Your task to perform on an android device: Search for vegetarian restaurants on Maps Image 0: 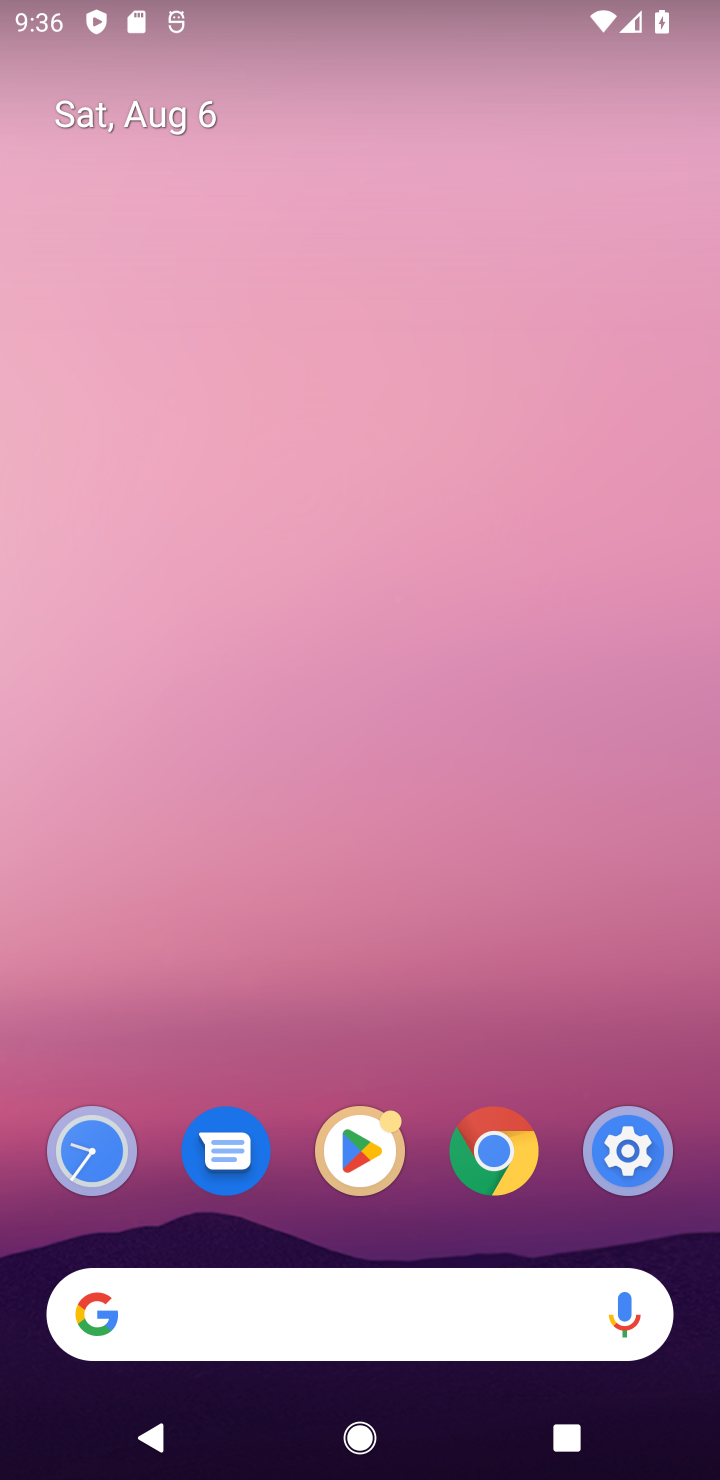
Step 0: drag from (622, 566) to (717, 246)
Your task to perform on an android device: Search for vegetarian restaurants on Maps Image 1: 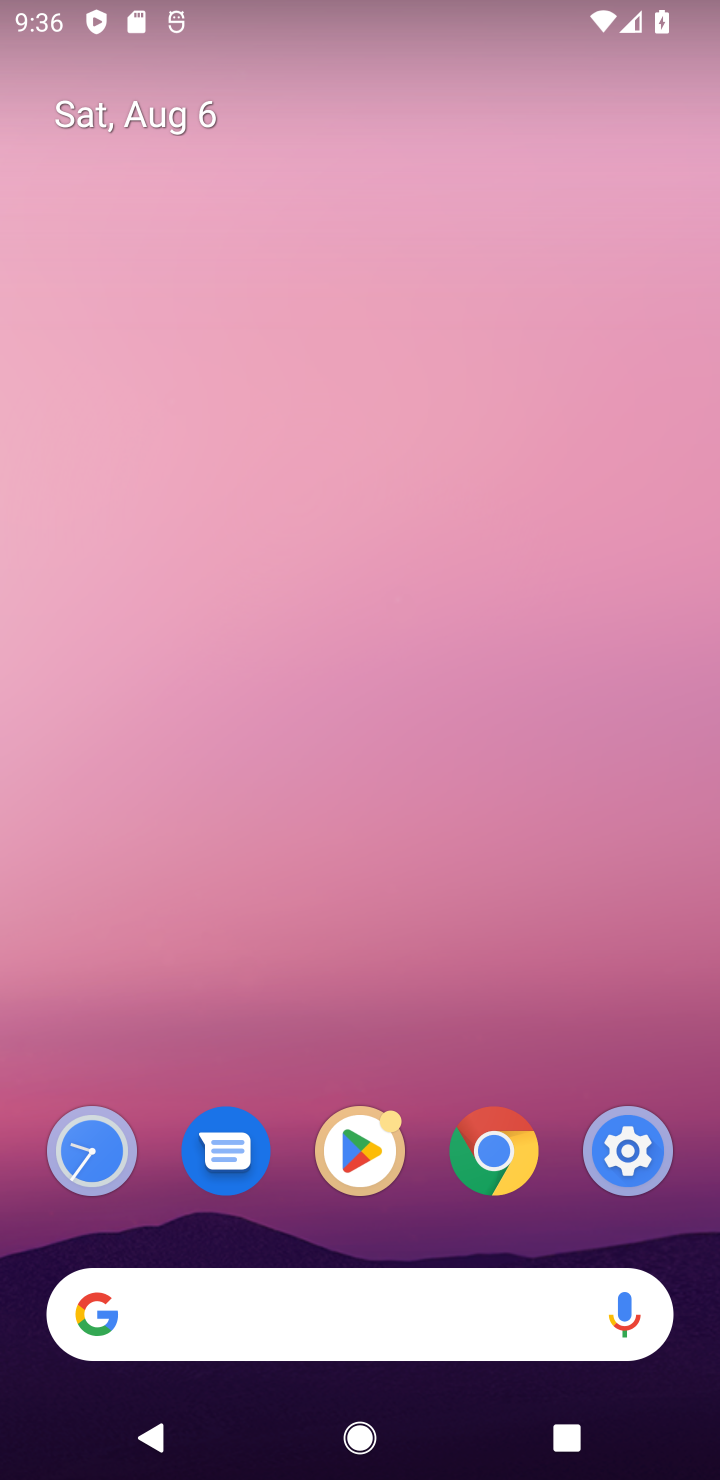
Step 1: drag from (389, 850) to (497, 243)
Your task to perform on an android device: Search for vegetarian restaurants on Maps Image 2: 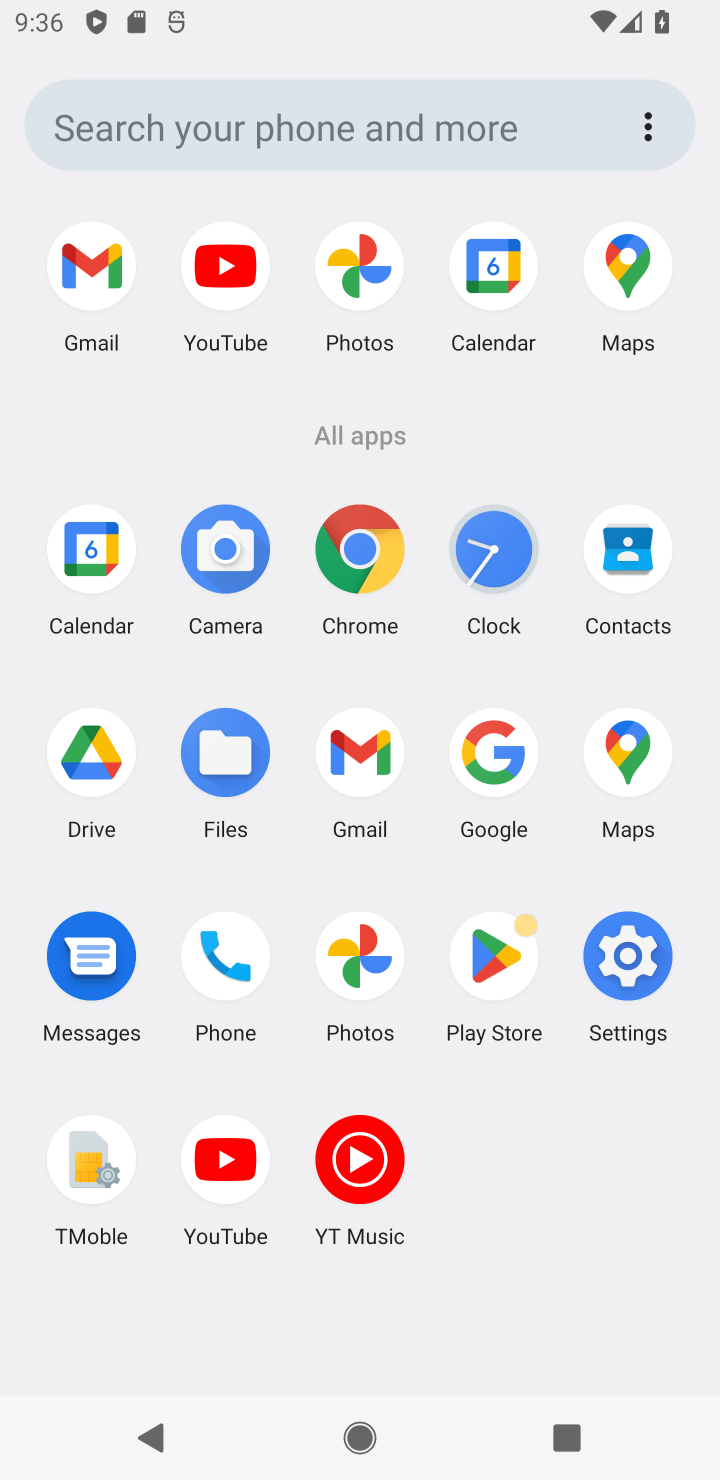
Step 2: click (634, 252)
Your task to perform on an android device: Search for vegetarian restaurants on Maps Image 3: 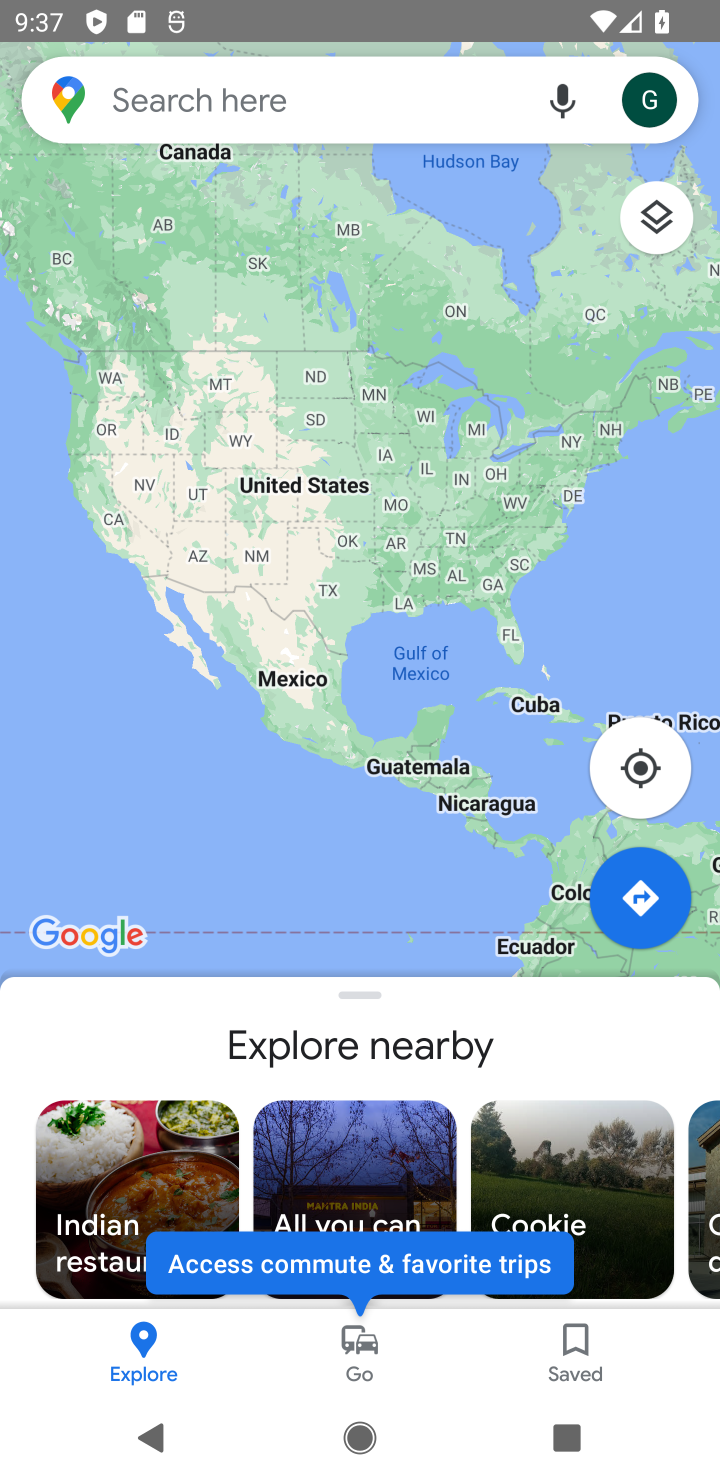
Step 3: type "vegetarian restaurants "
Your task to perform on an android device: Search for vegetarian restaurants on Maps Image 4: 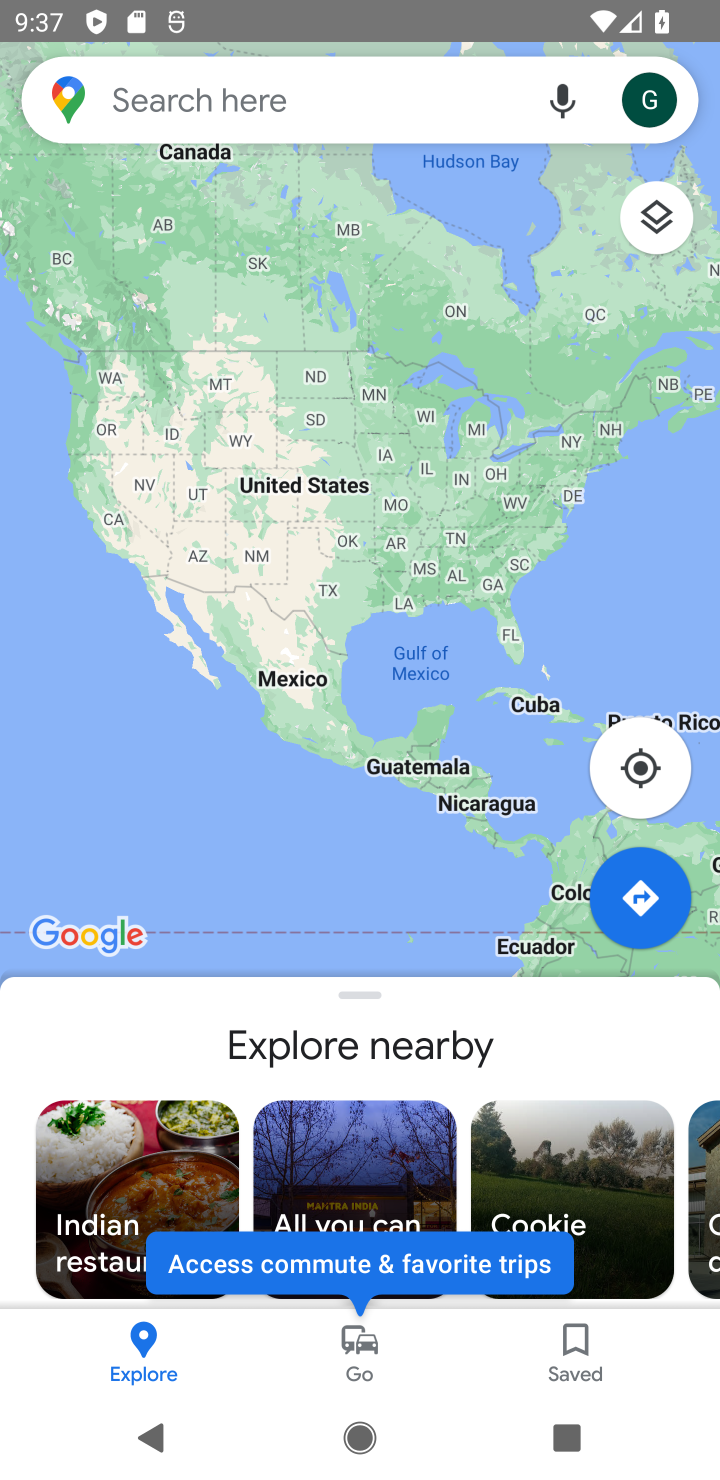
Step 4: click (477, 74)
Your task to perform on an android device: Search for vegetarian restaurants on Maps Image 5: 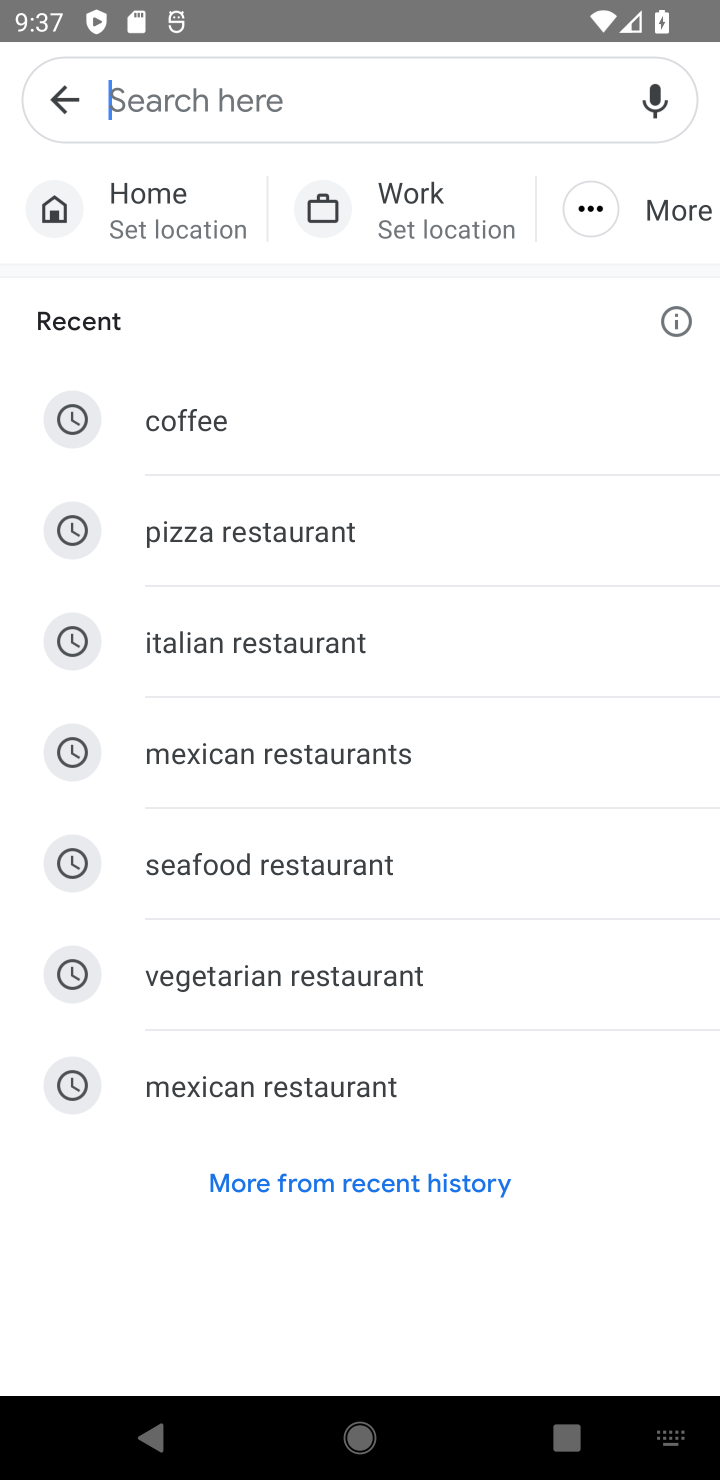
Step 5: type "vegetarian restaurants "
Your task to perform on an android device: Search for vegetarian restaurants on Maps Image 6: 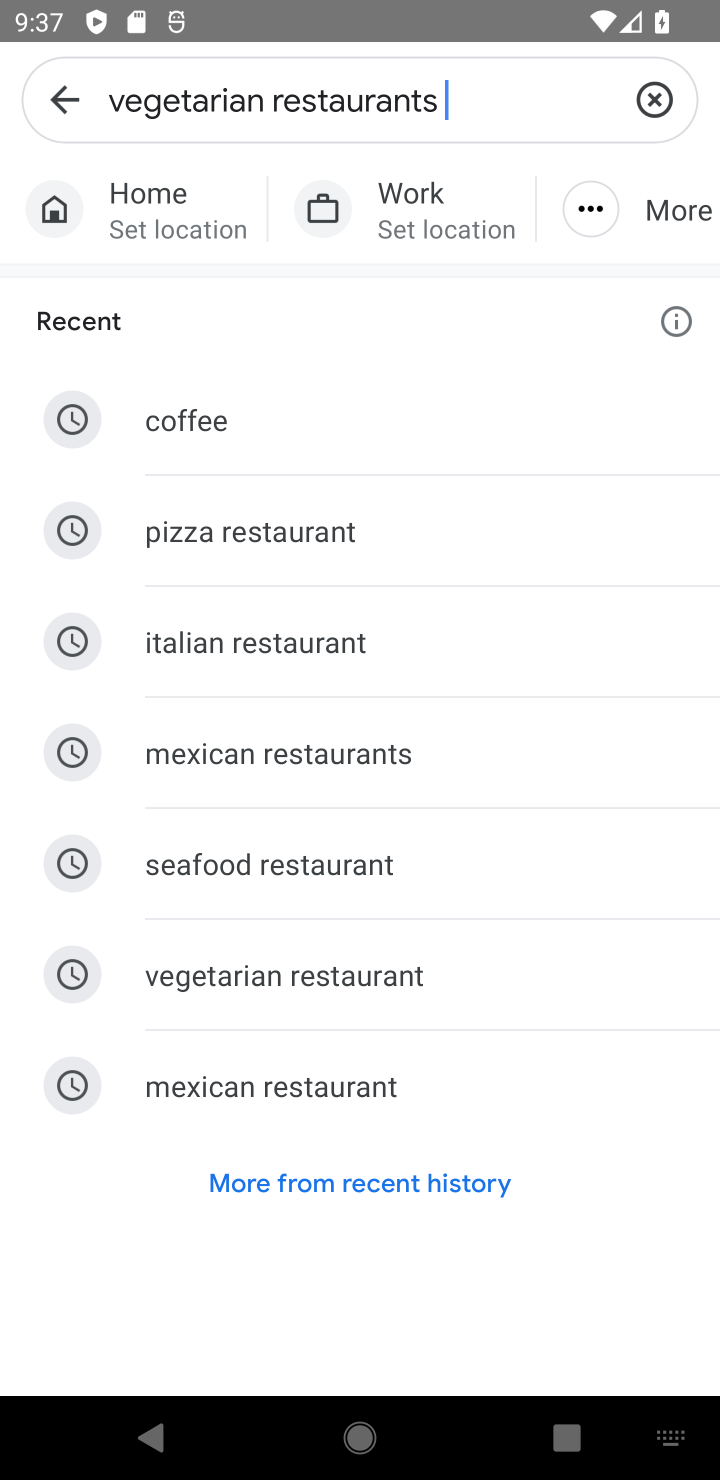
Step 6: type ""
Your task to perform on an android device: Search for vegetarian restaurants on Maps Image 7: 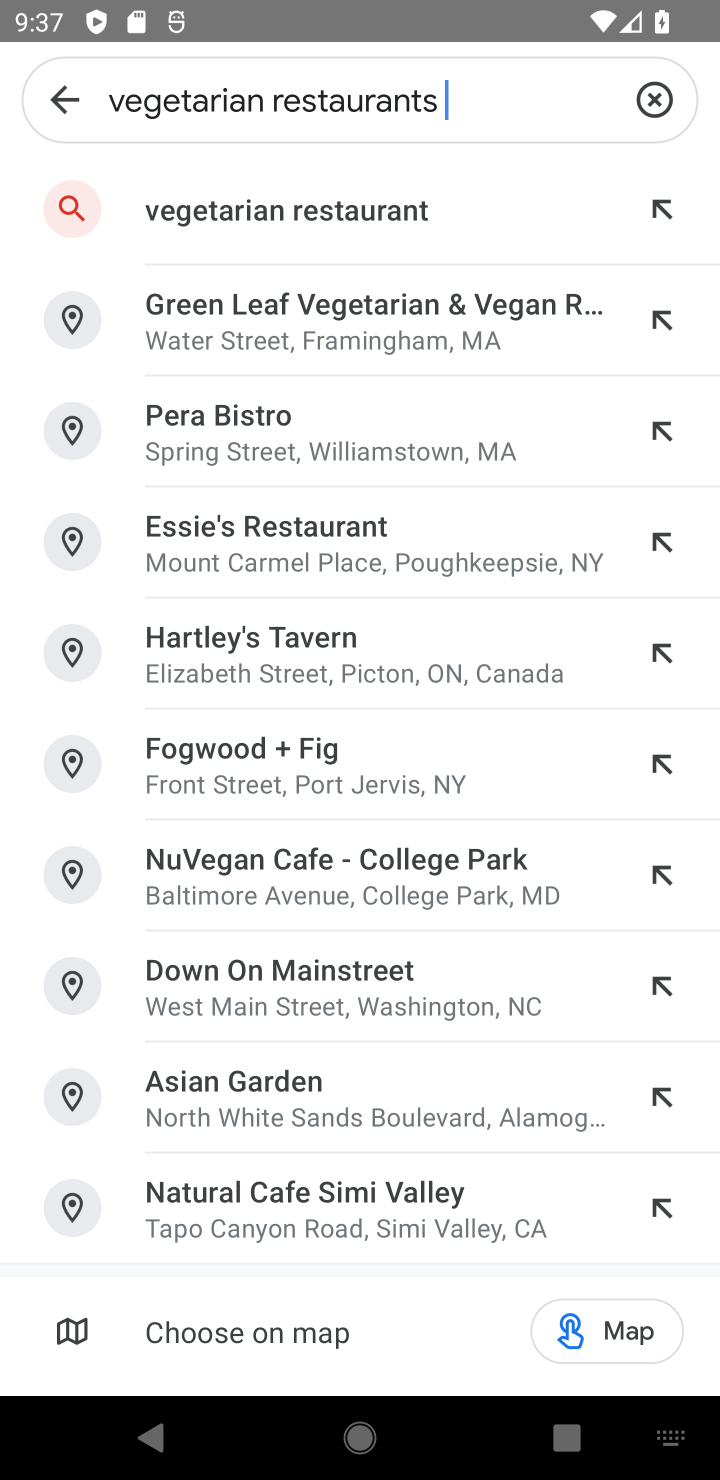
Step 7: press enter
Your task to perform on an android device: Search for vegetarian restaurants on Maps Image 8: 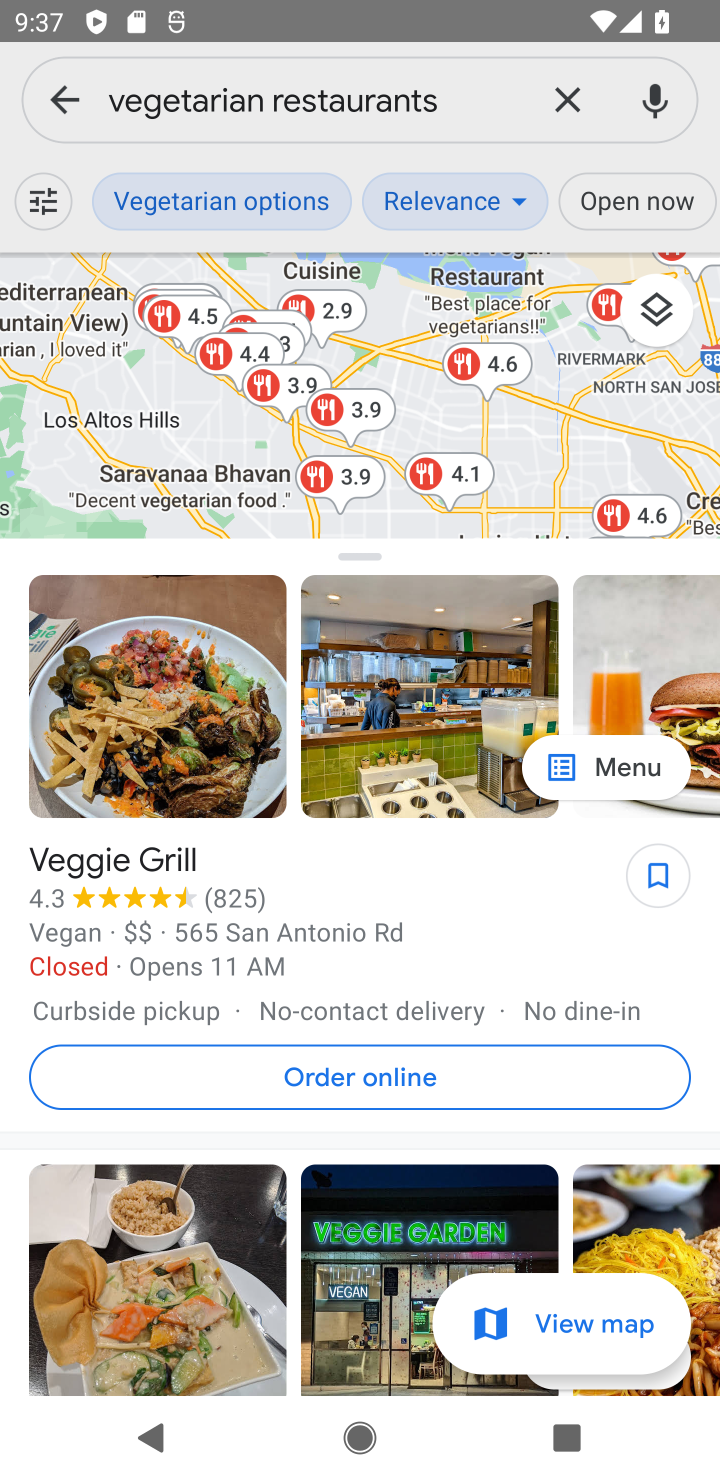
Step 8: task complete